Your task to perform on an android device: See recent photos Image 0: 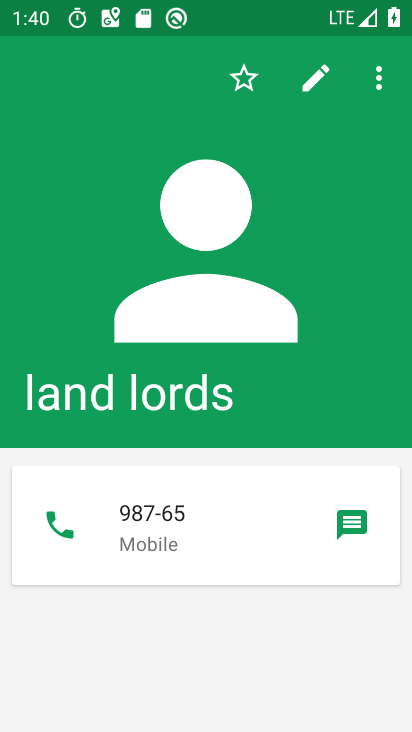
Step 0: press home button
Your task to perform on an android device: See recent photos Image 1: 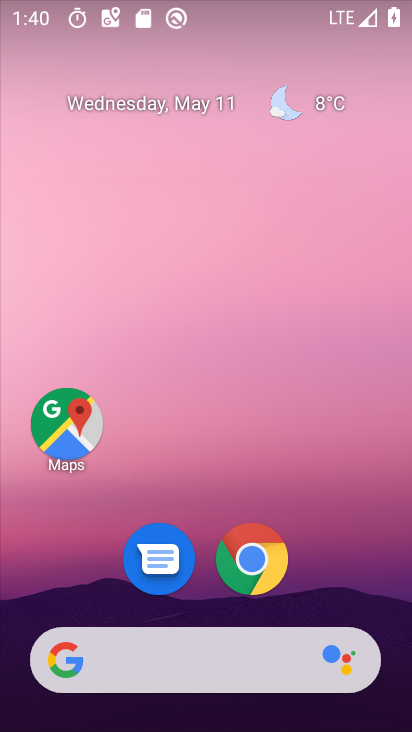
Step 1: drag from (220, 725) to (226, 148)
Your task to perform on an android device: See recent photos Image 2: 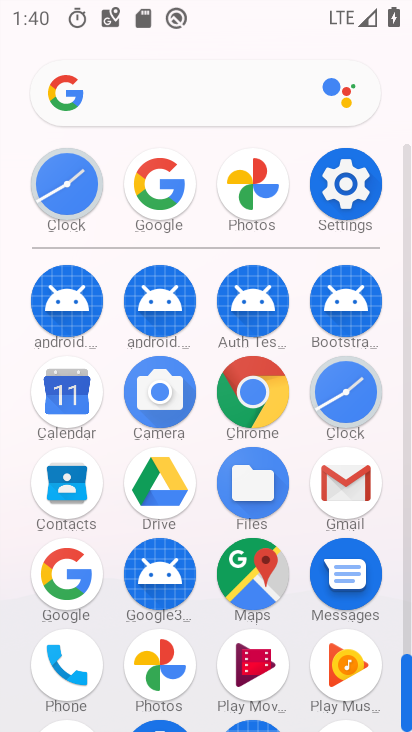
Step 2: click (258, 180)
Your task to perform on an android device: See recent photos Image 3: 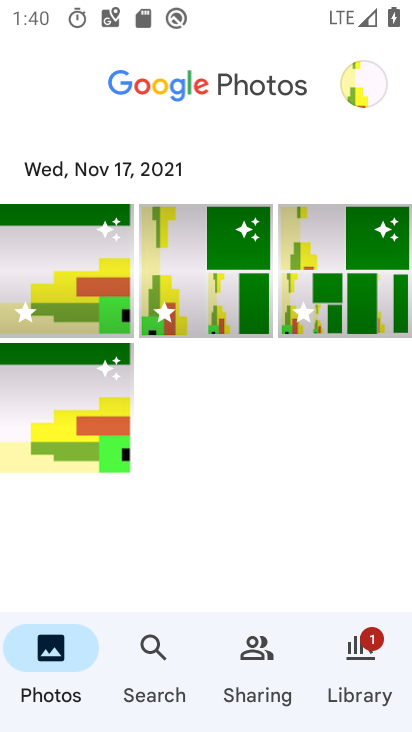
Step 3: click (66, 269)
Your task to perform on an android device: See recent photos Image 4: 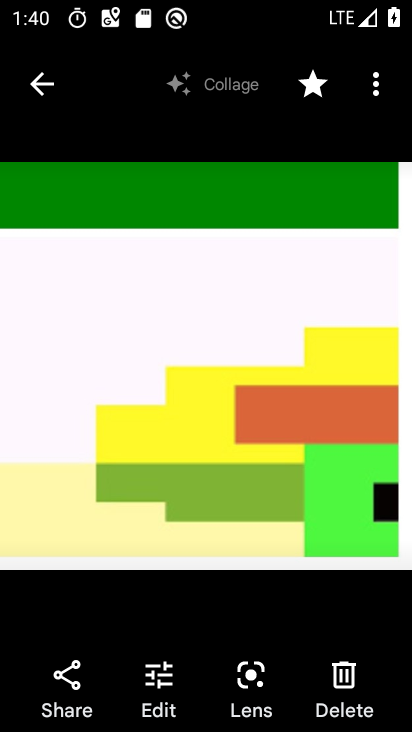
Step 4: task complete